Your task to perform on an android device: star an email in the gmail app Image 0: 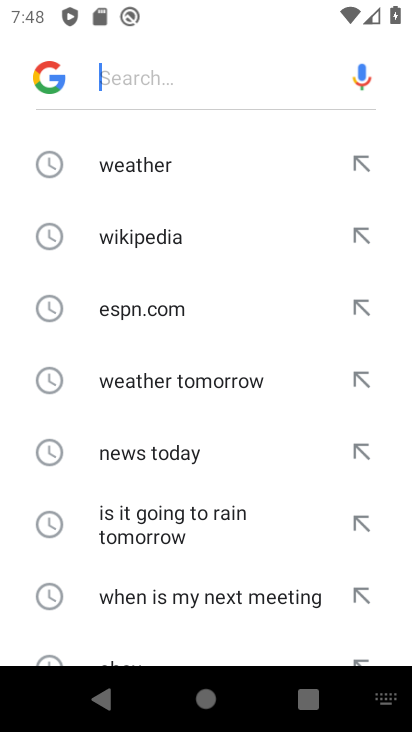
Step 0: press home button
Your task to perform on an android device: star an email in the gmail app Image 1: 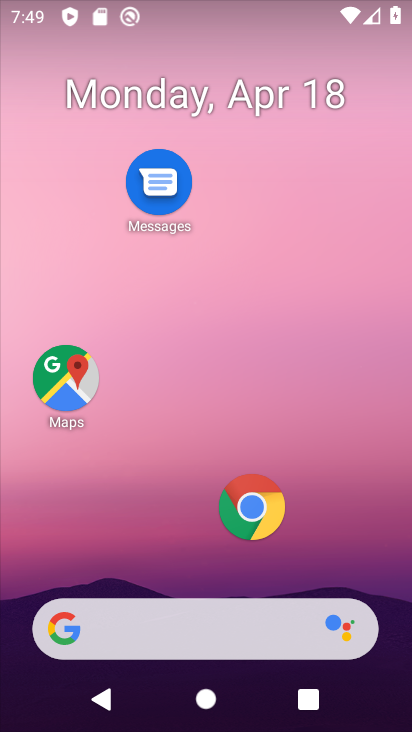
Step 1: drag from (163, 595) to (198, 292)
Your task to perform on an android device: star an email in the gmail app Image 2: 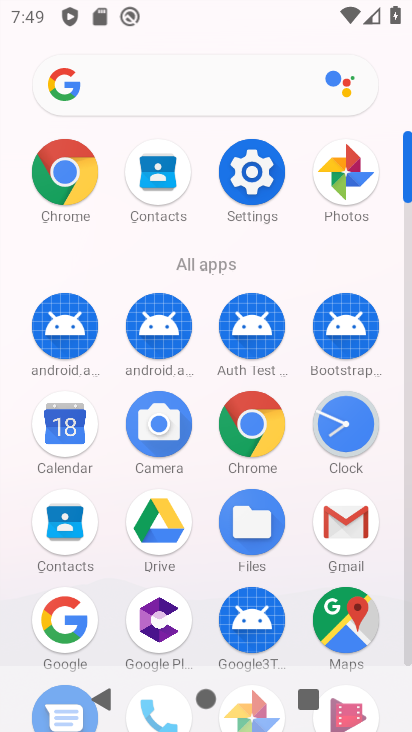
Step 2: click (340, 528)
Your task to perform on an android device: star an email in the gmail app Image 3: 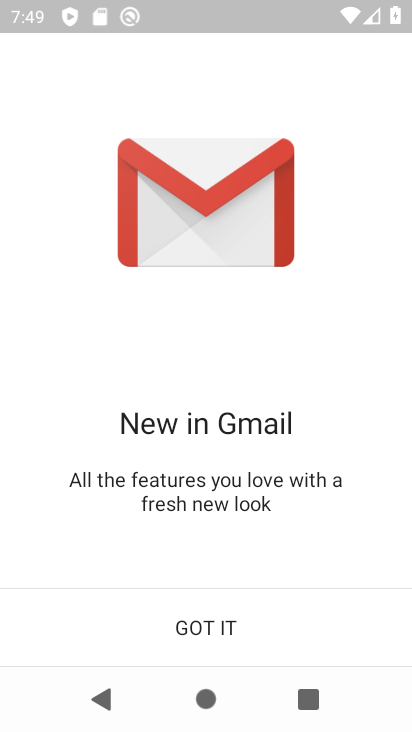
Step 3: click (222, 622)
Your task to perform on an android device: star an email in the gmail app Image 4: 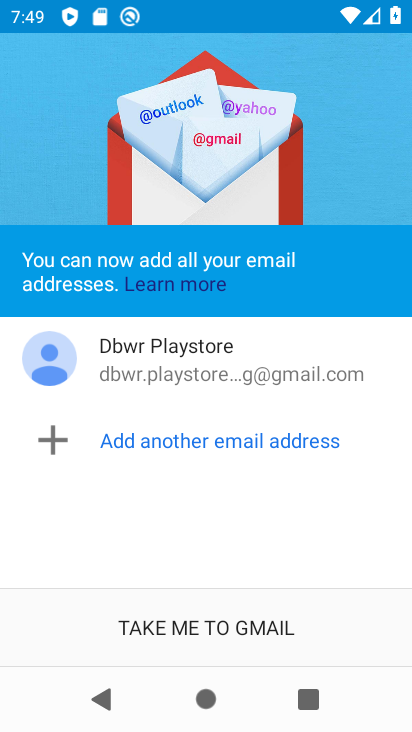
Step 4: click (225, 632)
Your task to perform on an android device: star an email in the gmail app Image 5: 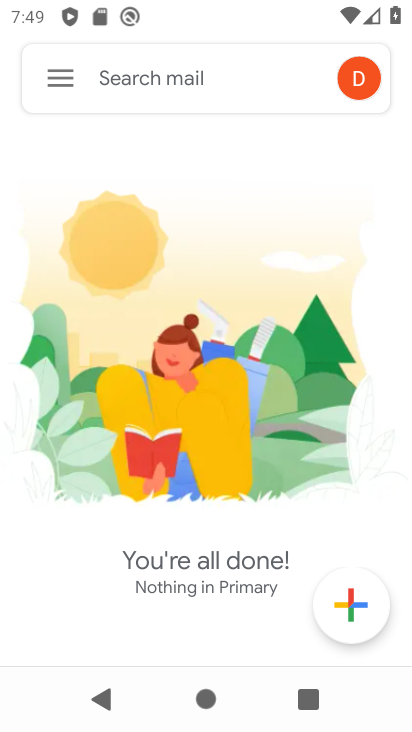
Step 5: click (64, 72)
Your task to perform on an android device: star an email in the gmail app Image 6: 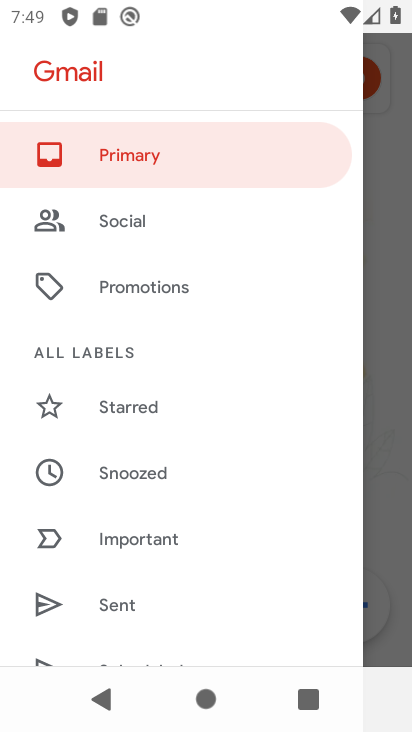
Step 6: drag from (143, 606) to (129, 215)
Your task to perform on an android device: star an email in the gmail app Image 7: 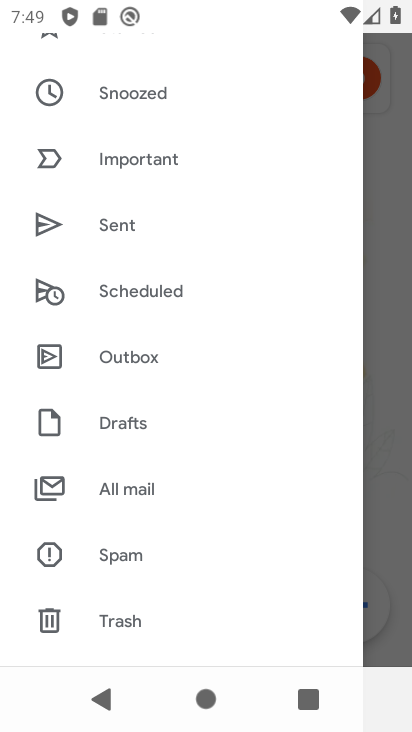
Step 7: drag from (137, 629) to (155, 315)
Your task to perform on an android device: star an email in the gmail app Image 8: 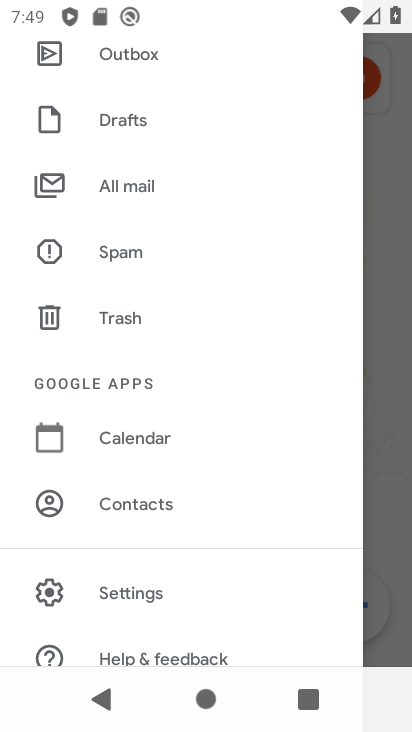
Step 8: click (108, 188)
Your task to perform on an android device: star an email in the gmail app Image 9: 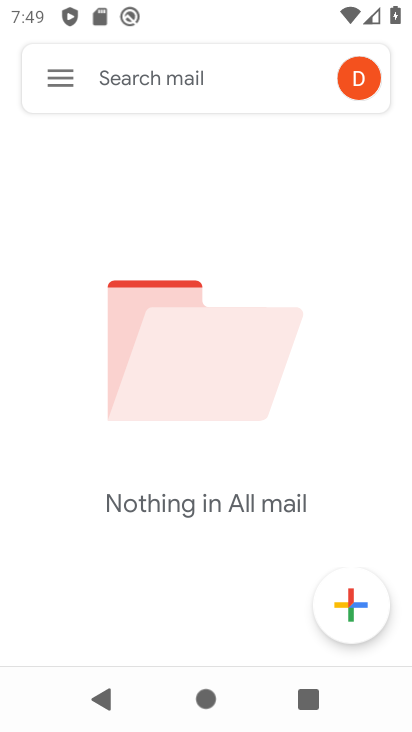
Step 9: task complete